Your task to perform on an android device: set default search engine in the chrome app Image 0: 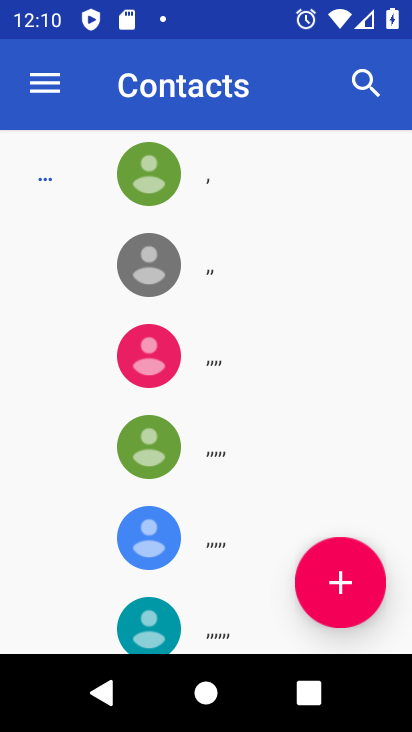
Step 0: press home button
Your task to perform on an android device: set default search engine in the chrome app Image 1: 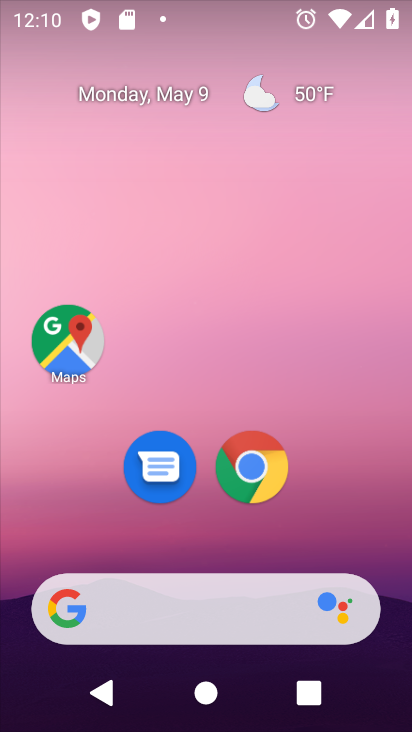
Step 1: click (249, 459)
Your task to perform on an android device: set default search engine in the chrome app Image 2: 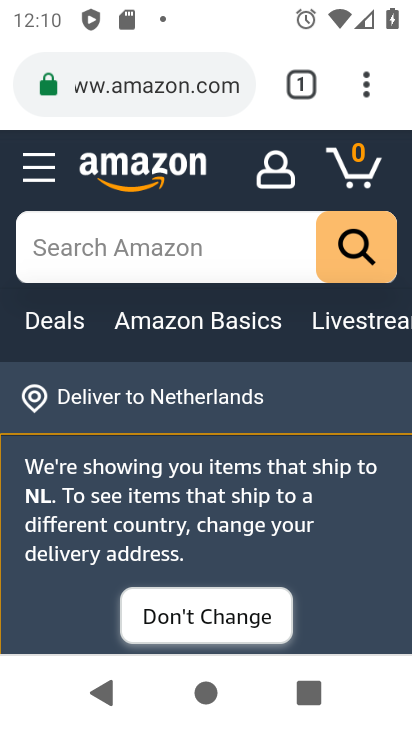
Step 2: click (362, 82)
Your task to perform on an android device: set default search engine in the chrome app Image 3: 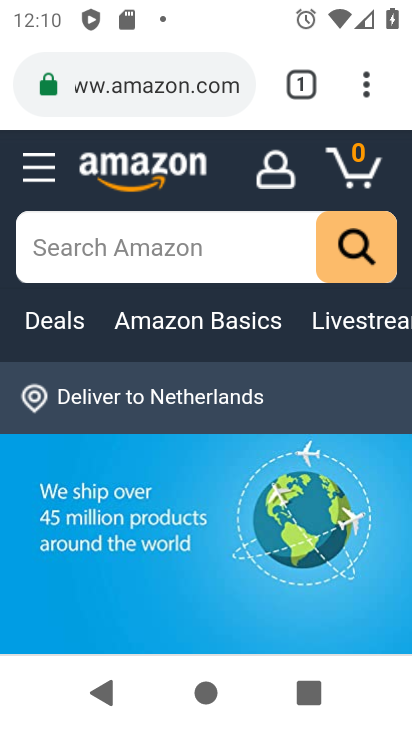
Step 3: click (365, 81)
Your task to perform on an android device: set default search engine in the chrome app Image 4: 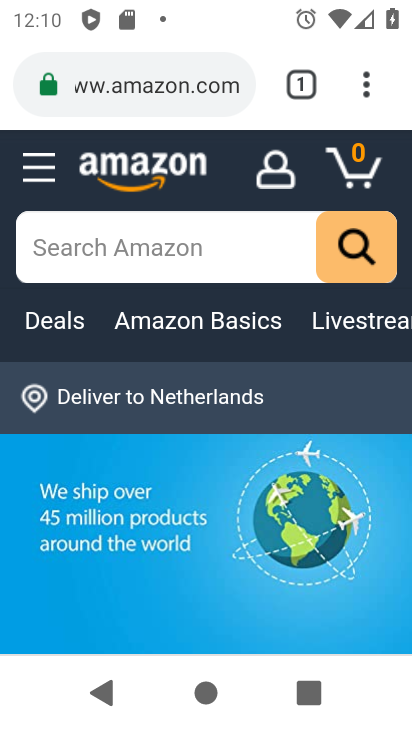
Step 4: click (360, 77)
Your task to perform on an android device: set default search engine in the chrome app Image 5: 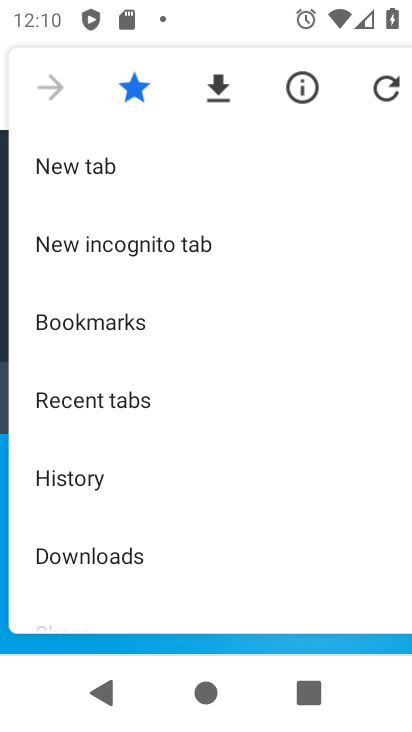
Step 5: drag from (180, 520) to (229, 149)
Your task to perform on an android device: set default search engine in the chrome app Image 6: 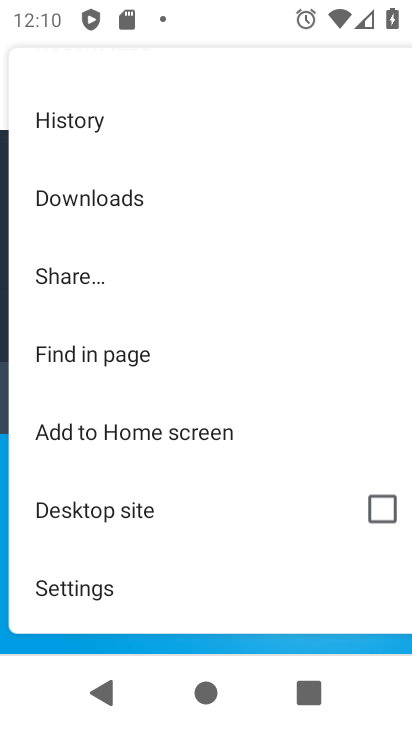
Step 6: click (127, 590)
Your task to perform on an android device: set default search engine in the chrome app Image 7: 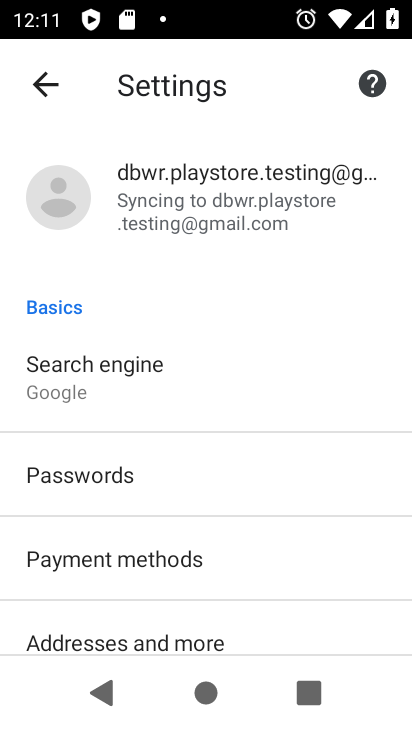
Step 7: drag from (250, 619) to (260, 328)
Your task to perform on an android device: set default search engine in the chrome app Image 8: 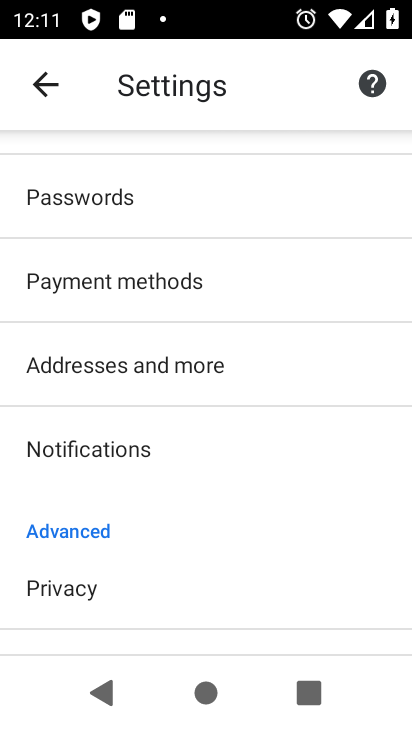
Step 8: drag from (241, 315) to (254, 674)
Your task to perform on an android device: set default search engine in the chrome app Image 9: 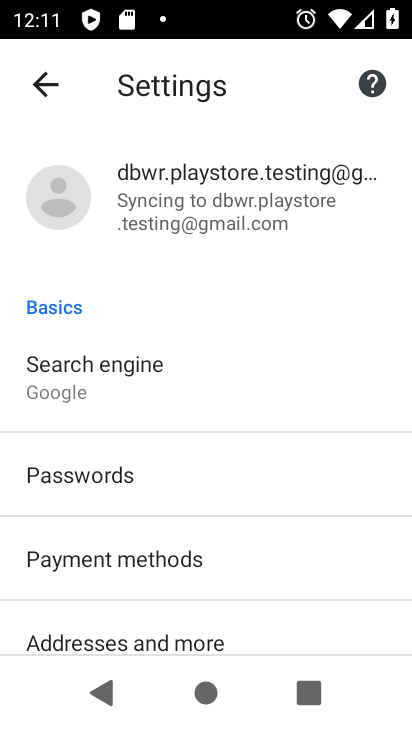
Step 9: click (117, 391)
Your task to perform on an android device: set default search engine in the chrome app Image 10: 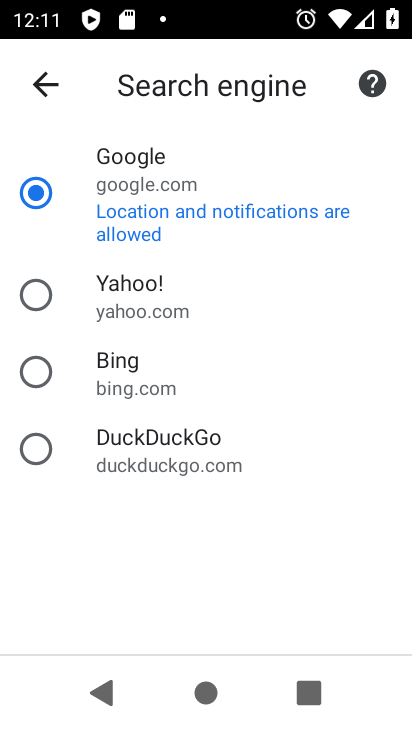
Step 10: click (39, 368)
Your task to perform on an android device: set default search engine in the chrome app Image 11: 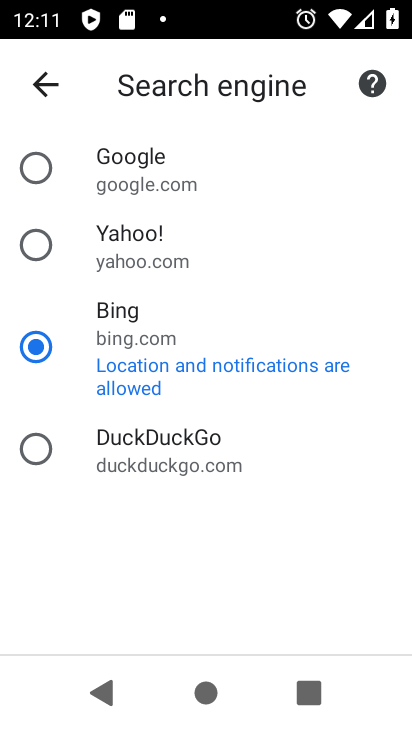
Step 11: task complete